Your task to perform on an android device: open sync settings in chrome Image 0: 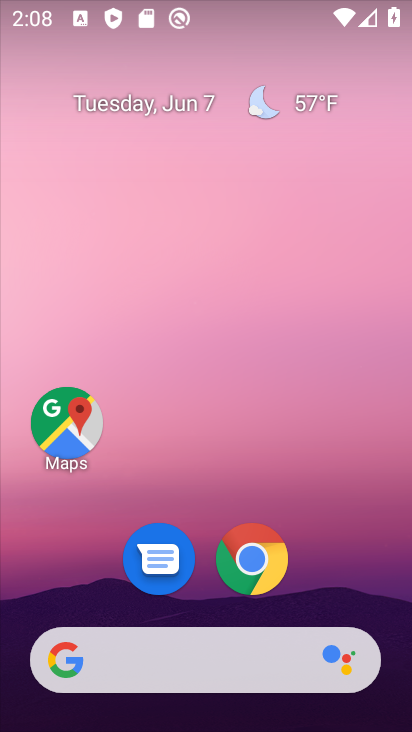
Step 0: press home button
Your task to perform on an android device: open sync settings in chrome Image 1: 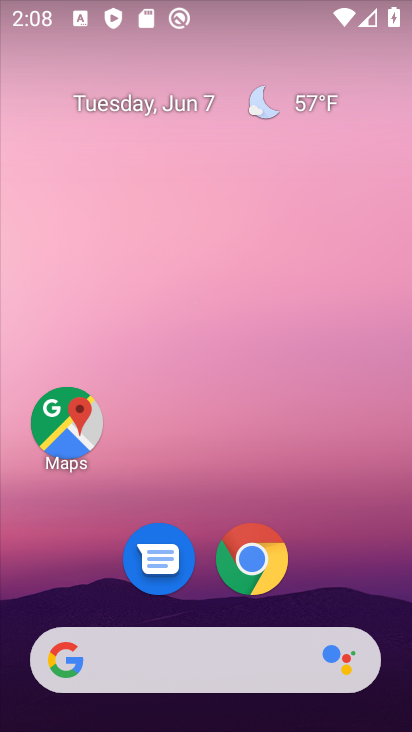
Step 1: drag from (8, 631) to (202, 191)
Your task to perform on an android device: open sync settings in chrome Image 2: 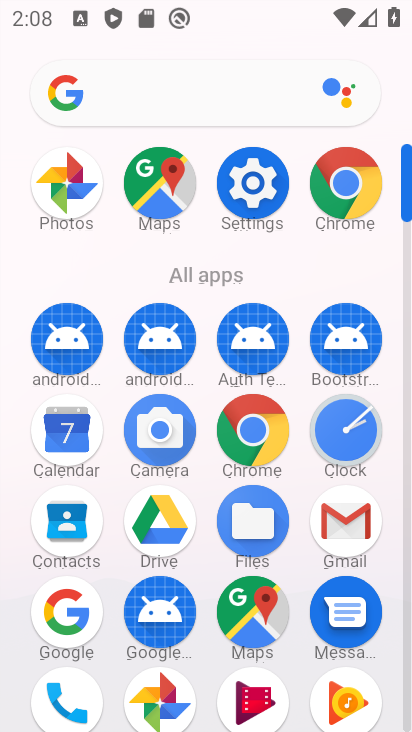
Step 2: click (237, 187)
Your task to perform on an android device: open sync settings in chrome Image 3: 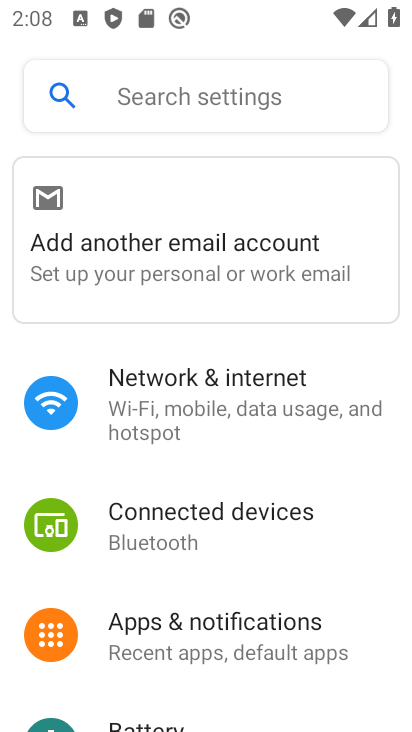
Step 3: press home button
Your task to perform on an android device: open sync settings in chrome Image 4: 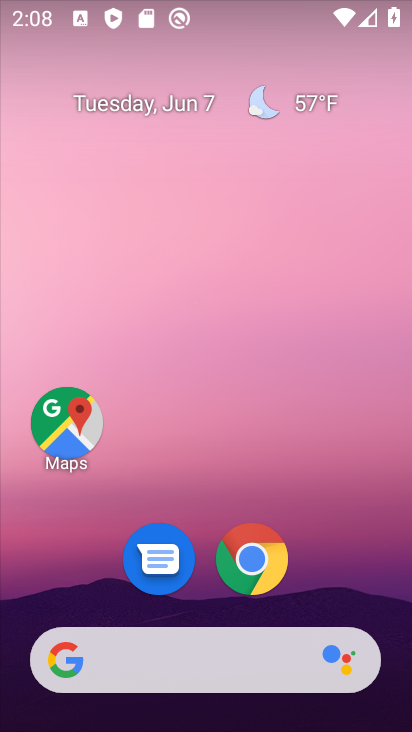
Step 4: click (249, 565)
Your task to perform on an android device: open sync settings in chrome Image 5: 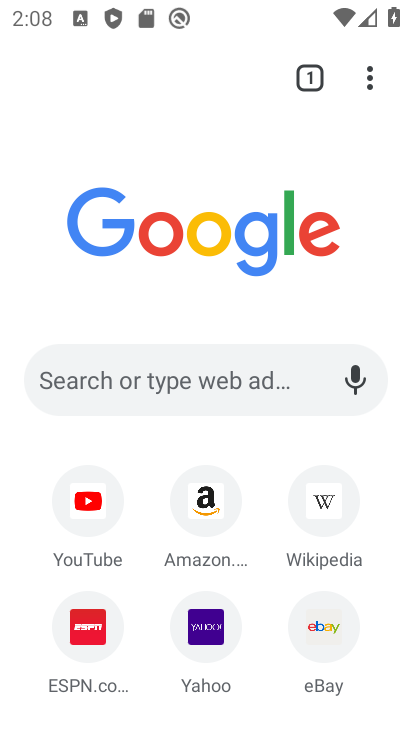
Step 5: click (371, 74)
Your task to perform on an android device: open sync settings in chrome Image 6: 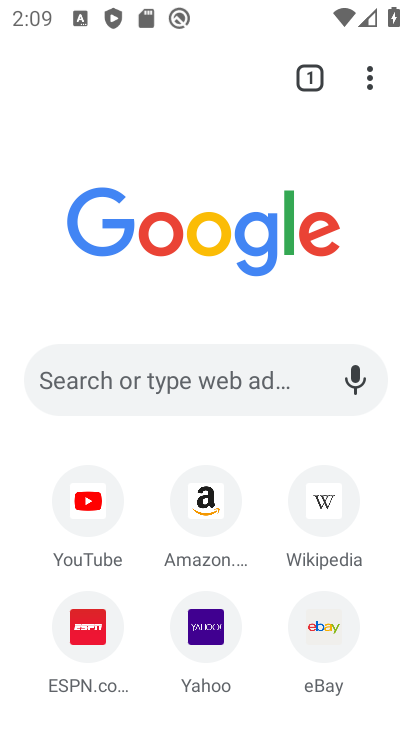
Step 6: click (370, 80)
Your task to perform on an android device: open sync settings in chrome Image 7: 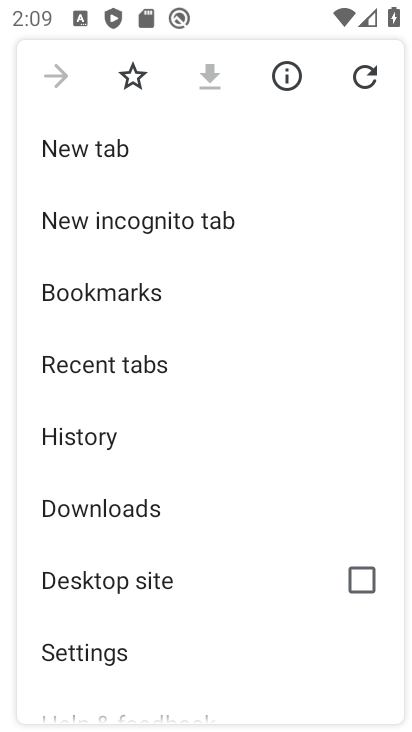
Step 7: click (55, 650)
Your task to perform on an android device: open sync settings in chrome Image 8: 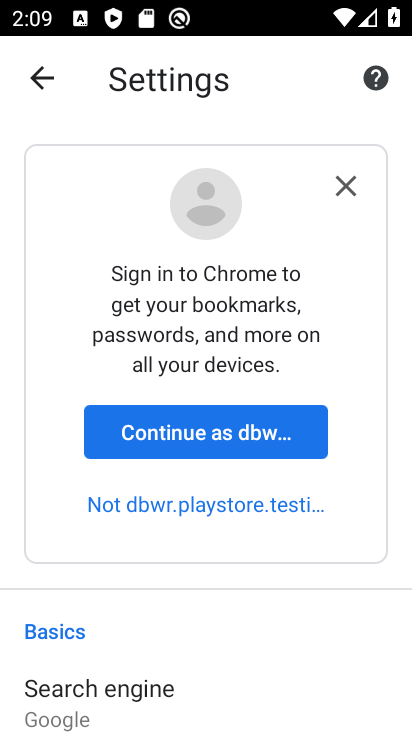
Step 8: click (343, 176)
Your task to perform on an android device: open sync settings in chrome Image 9: 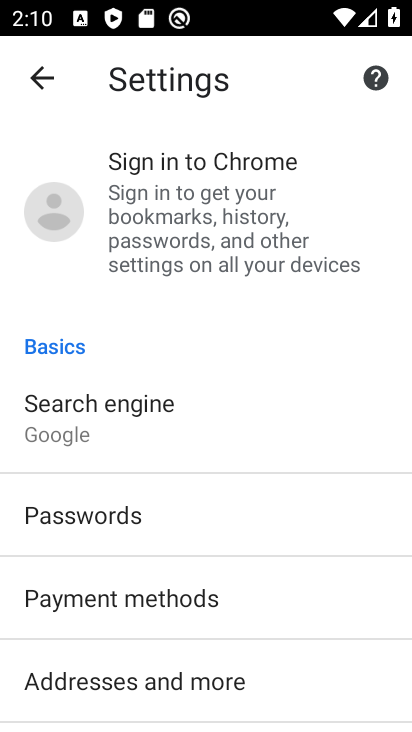
Step 9: drag from (80, 609) to (287, 72)
Your task to perform on an android device: open sync settings in chrome Image 10: 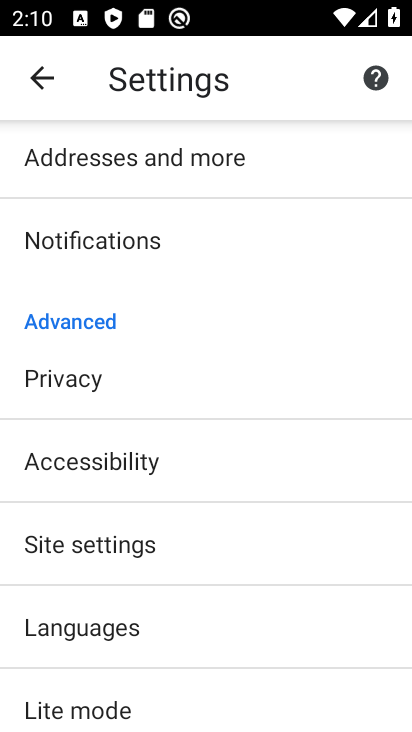
Step 10: click (94, 539)
Your task to perform on an android device: open sync settings in chrome Image 11: 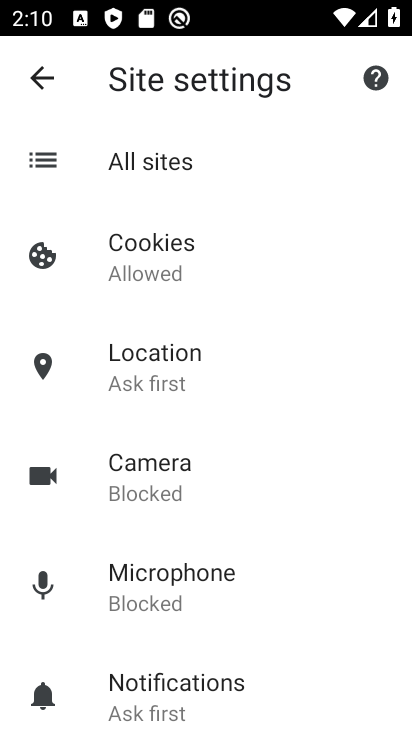
Step 11: drag from (23, 585) to (186, 205)
Your task to perform on an android device: open sync settings in chrome Image 12: 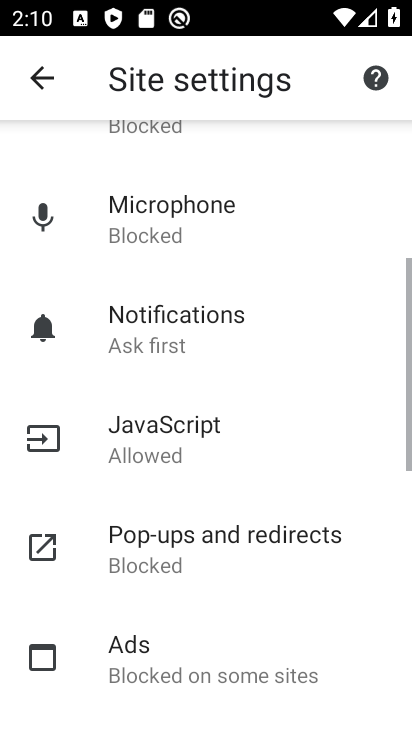
Step 12: drag from (66, 695) to (226, 269)
Your task to perform on an android device: open sync settings in chrome Image 13: 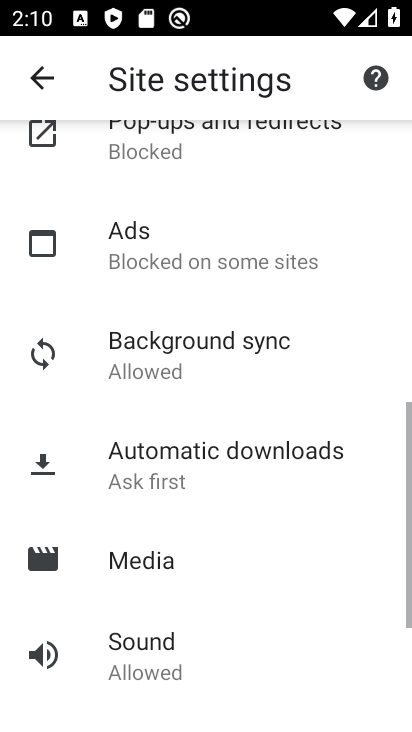
Step 13: click (178, 346)
Your task to perform on an android device: open sync settings in chrome Image 14: 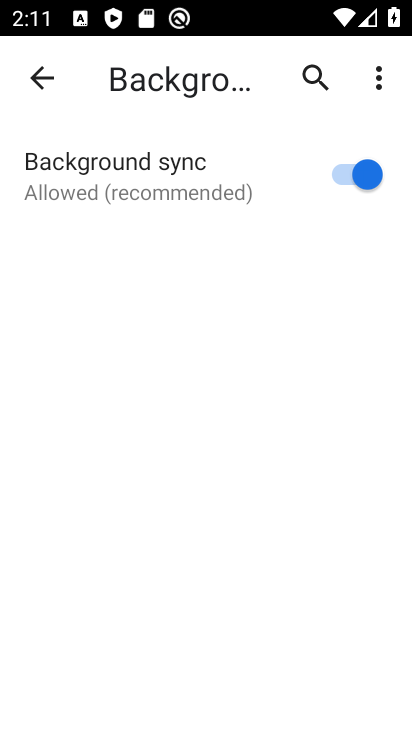
Step 14: task complete